Your task to perform on an android device: View the shopping cart on ebay.com. Add usb-b to the cart on ebay.com, then select checkout. Image 0: 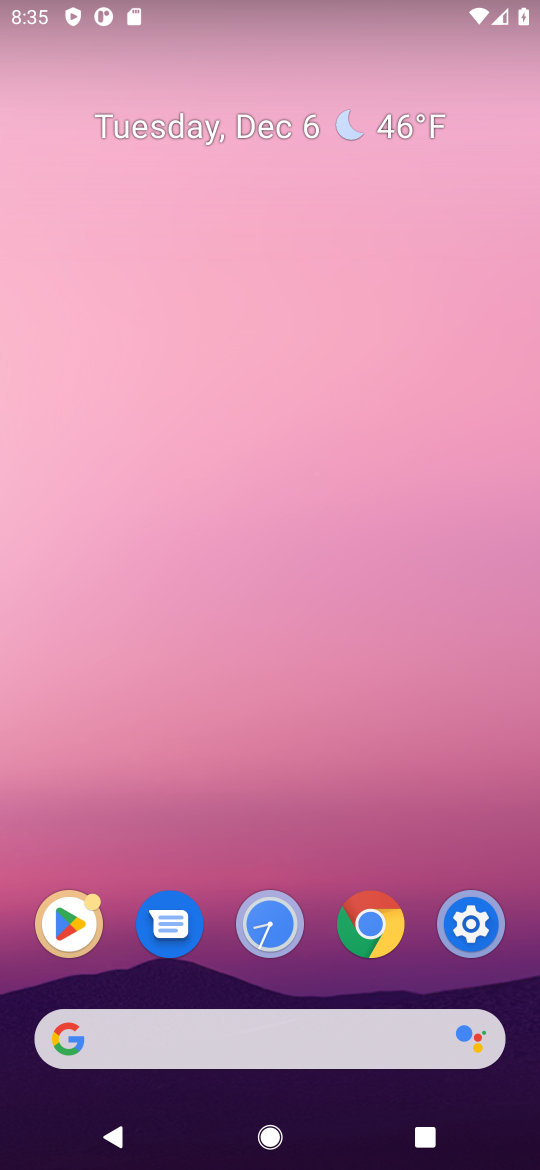
Step 0: click (377, 1025)
Your task to perform on an android device: View the shopping cart on ebay.com. Add usb-b to the cart on ebay.com, then select checkout. Image 1: 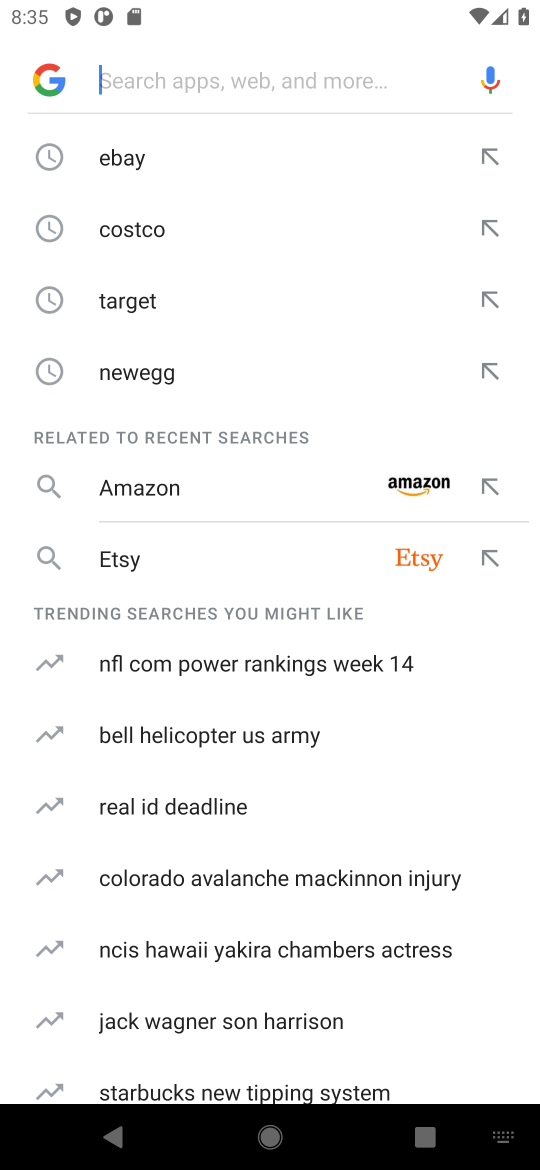
Step 1: type "ebay.com"
Your task to perform on an android device: View the shopping cart on ebay.com. Add usb-b to the cart on ebay.com, then select checkout. Image 2: 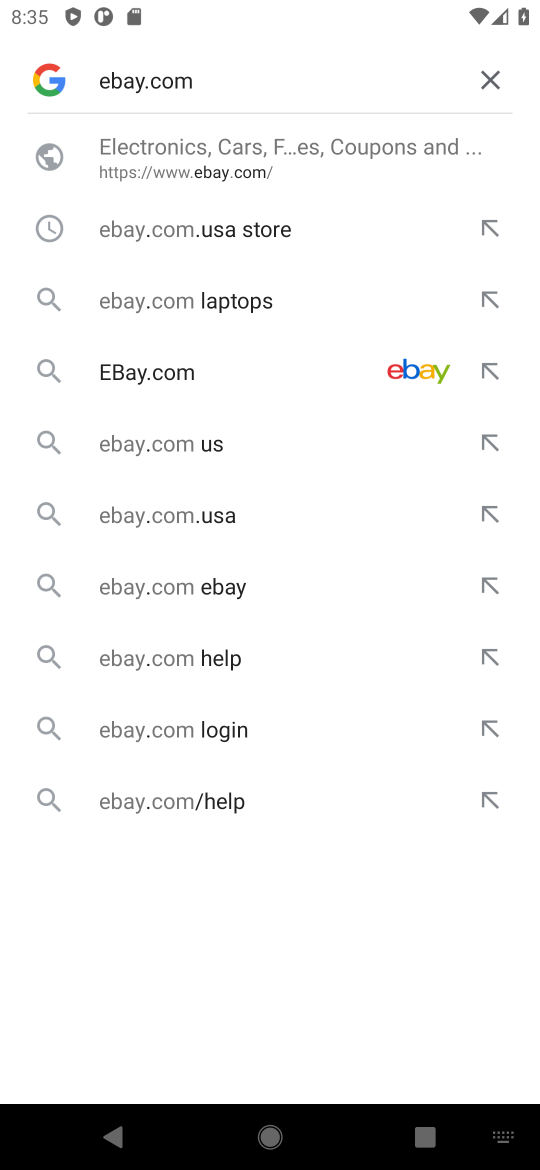
Step 2: click (193, 154)
Your task to perform on an android device: View the shopping cart on ebay.com. Add usb-b to the cart on ebay.com, then select checkout. Image 3: 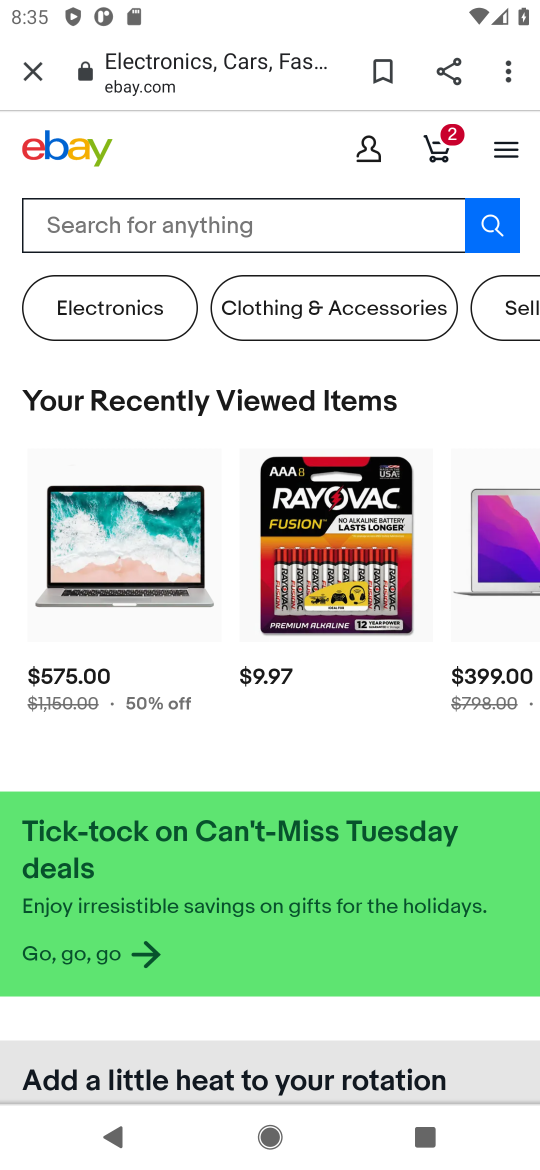
Step 3: click (234, 216)
Your task to perform on an android device: View the shopping cart on ebay.com. Add usb-b to the cart on ebay.com, then select checkout. Image 4: 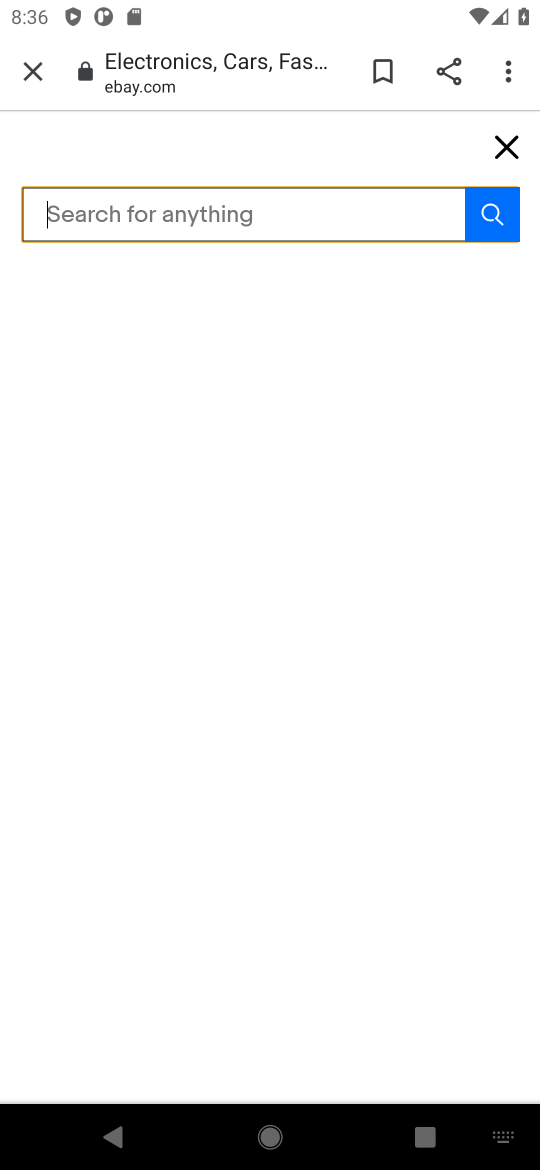
Step 4: type "usb-b "
Your task to perform on an android device: View the shopping cart on ebay.com. Add usb-b to the cart on ebay.com, then select checkout. Image 5: 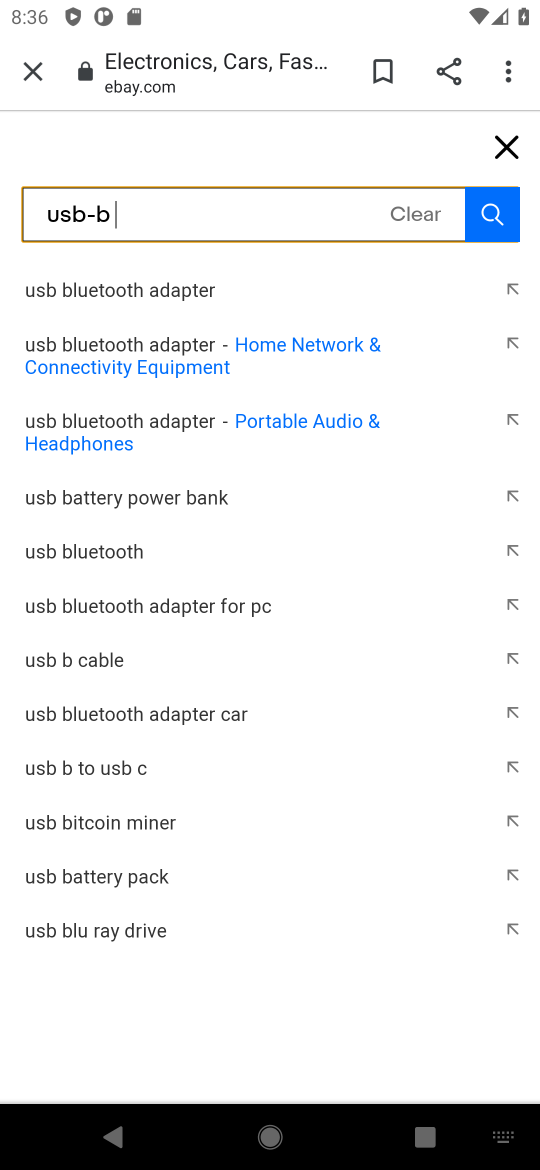
Step 5: click (485, 224)
Your task to perform on an android device: View the shopping cart on ebay.com. Add usb-b to the cart on ebay.com, then select checkout. Image 6: 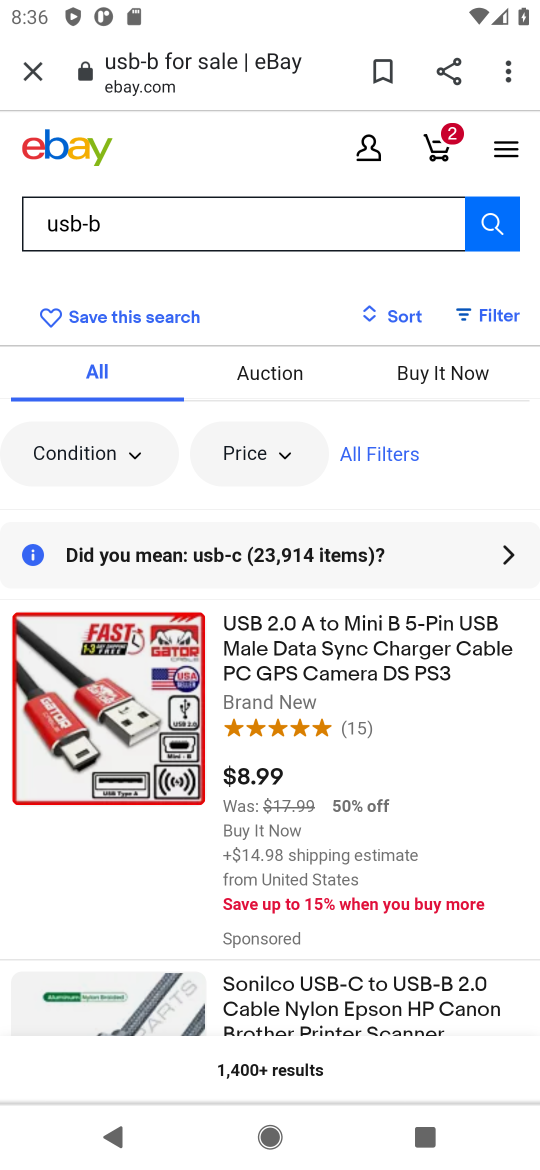
Step 6: click (306, 668)
Your task to perform on an android device: View the shopping cart on ebay.com. Add usb-b to the cart on ebay.com, then select checkout. Image 7: 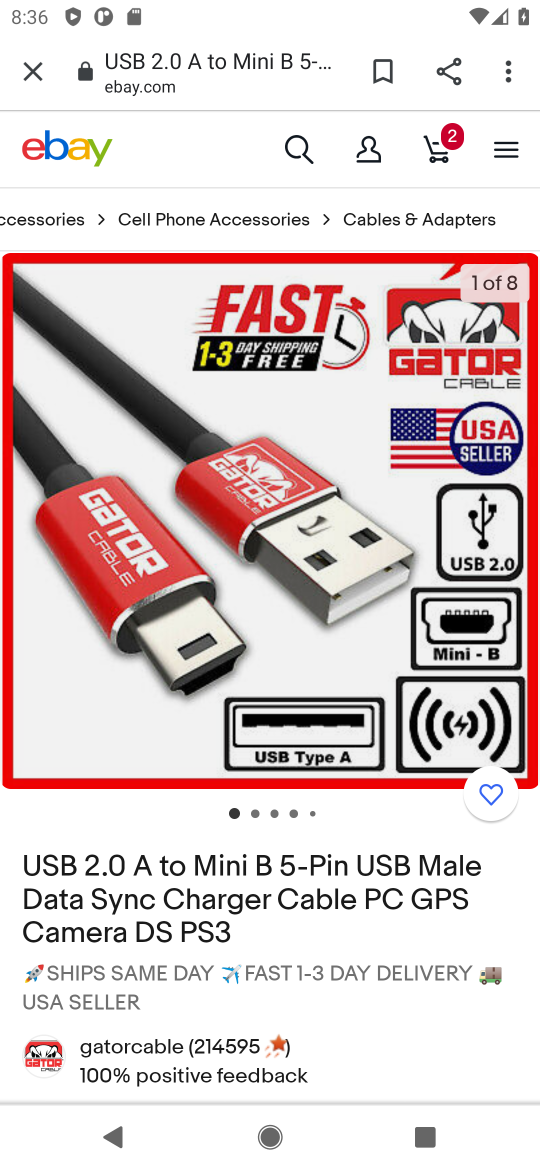
Step 7: drag from (378, 933) to (331, 399)
Your task to perform on an android device: View the shopping cart on ebay.com. Add usb-b to the cart on ebay.com, then select checkout. Image 8: 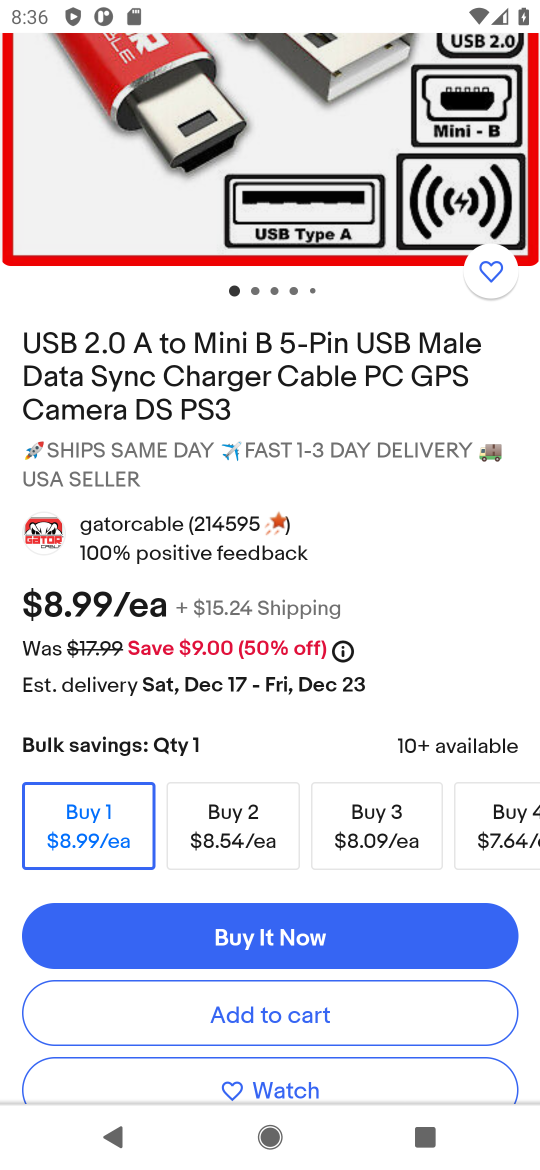
Step 8: click (390, 1028)
Your task to perform on an android device: View the shopping cart on ebay.com. Add usb-b to the cart on ebay.com, then select checkout. Image 9: 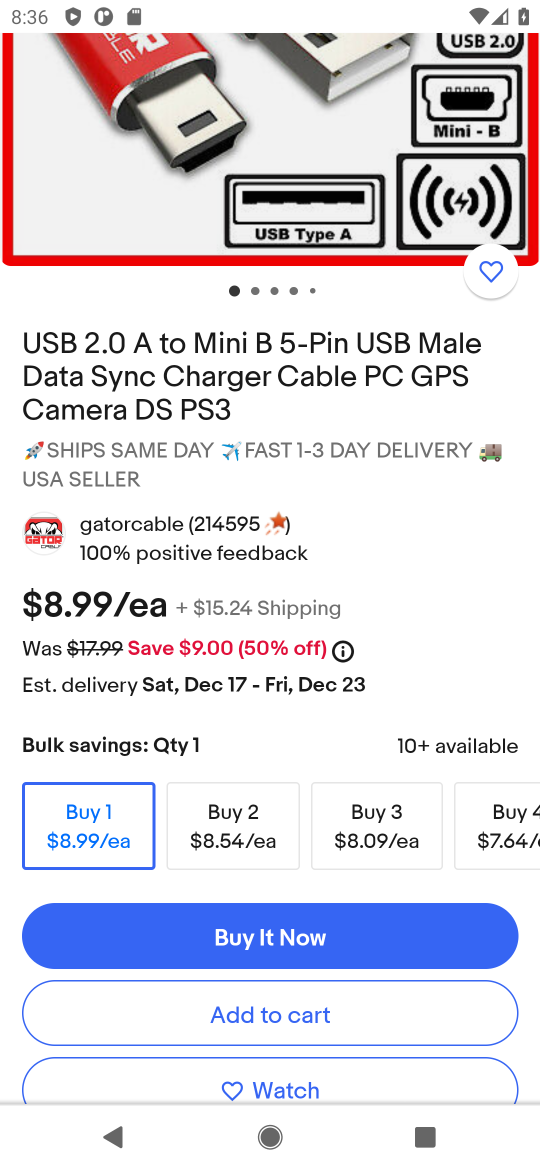
Step 9: task complete